Your task to perform on an android device: turn on notifications settings in the gmail app Image 0: 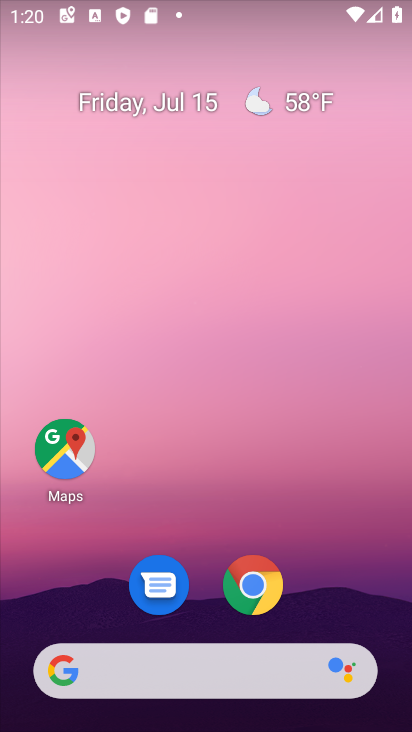
Step 0: drag from (267, 516) to (337, 74)
Your task to perform on an android device: turn on notifications settings in the gmail app Image 1: 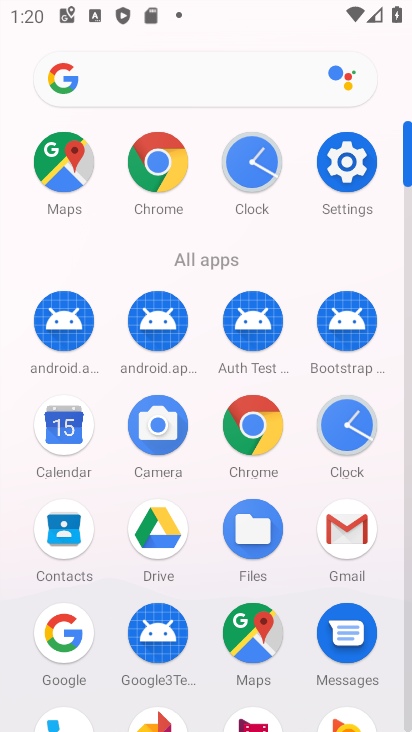
Step 1: click (344, 166)
Your task to perform on an android device: turn on notifications settings in the gmail app Image 2: 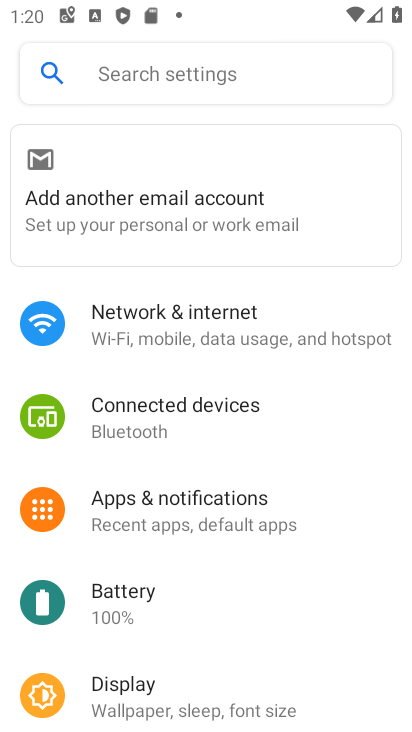
Step 2: click (236, 496)
Your task to perform on an android device: turn on notifications settings in the gmail app Image 3: 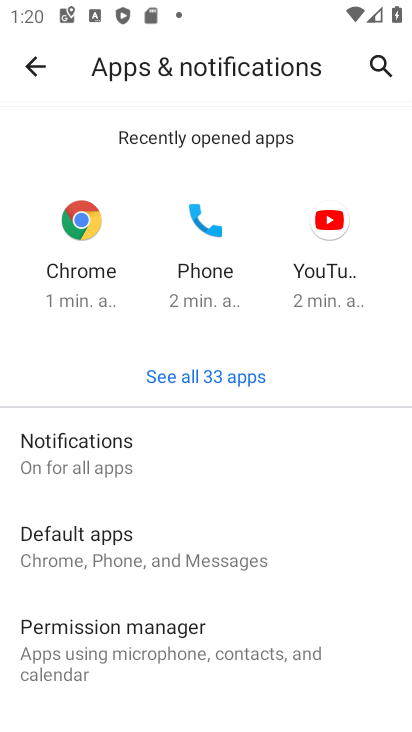
Step 3: click (250, 374)
Your task to perform on an android device: turn on notifications settings in the gmail app Image 4: 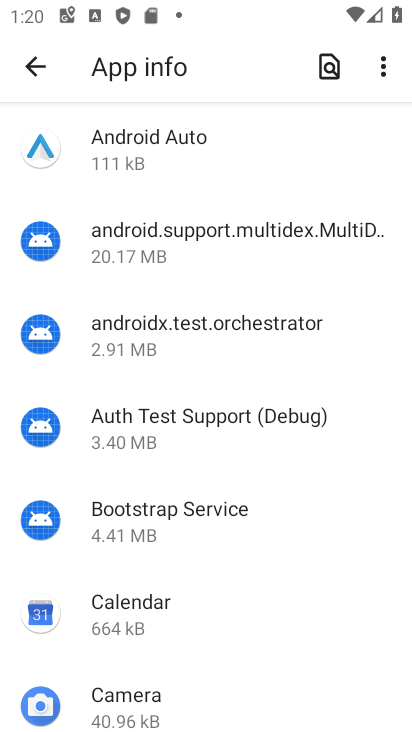
Step 4: drag from (265, 571) to (293, 79)
Your task to perform on an android device: turn on notifications settings in the gmail app Image 5: 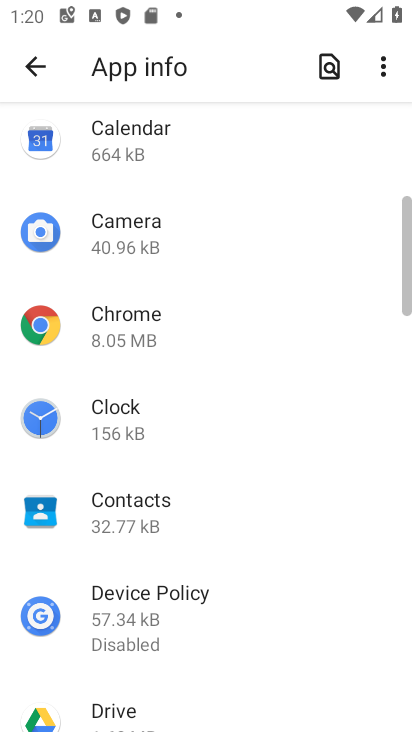
Step 5: drag from (191, 576) to (229, 69)
Your task to perform on an android device: turn on notifications settings in the gmail app Image 6: 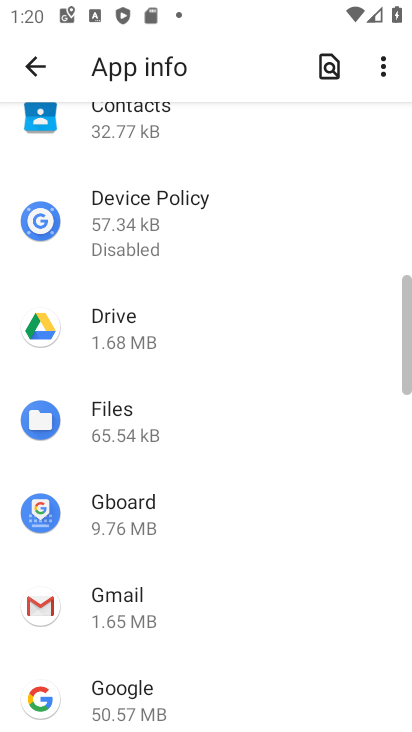
Step 6: click (138, 603)
Your task to perform on an android device: turn on notifications settings in the gmail app Image 7: 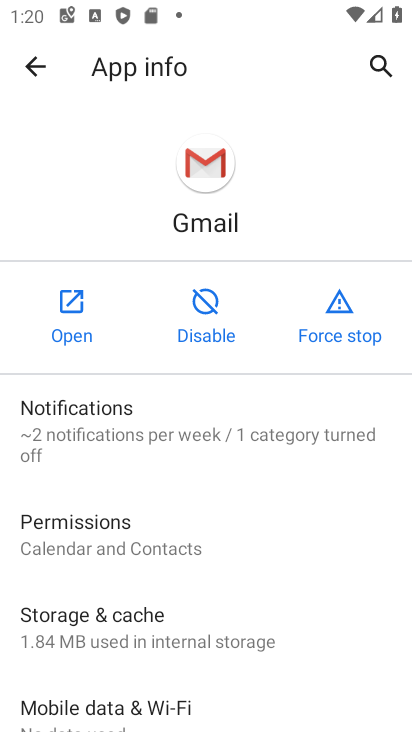
Step 7: click (236, 412)
Your task to perform on an android device: turn on notifications settings in the gmail app Image 8: 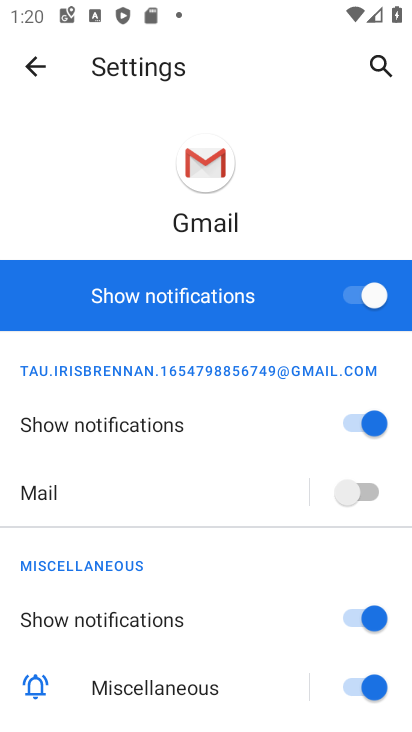
Step 8: task complete